Your task to perform on an android device: create a new album in the google photos Image 0: 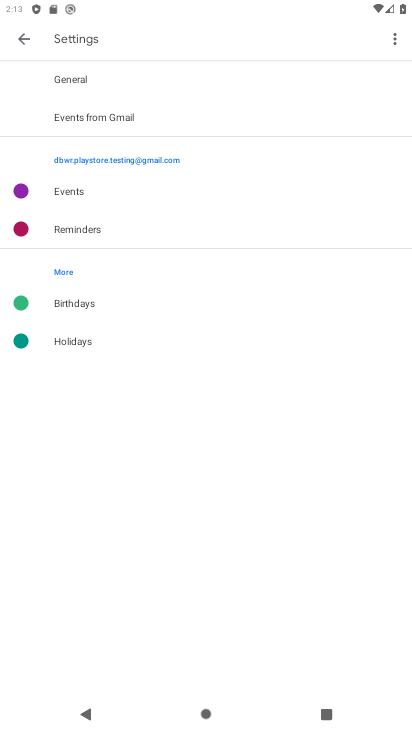
Step 0: press home button
Your task to perform on an android device: create a new album in the google photos Image 1: 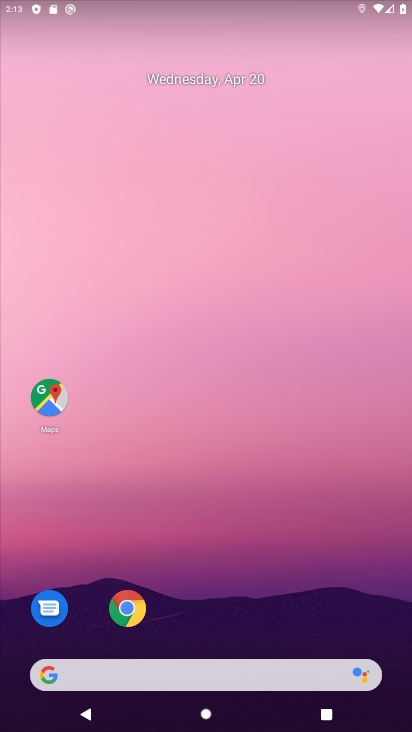
Step 1: drag from (375, 604) to (374, 258)
Your task to perform on an android device: create a new album in the google photos Image 2: 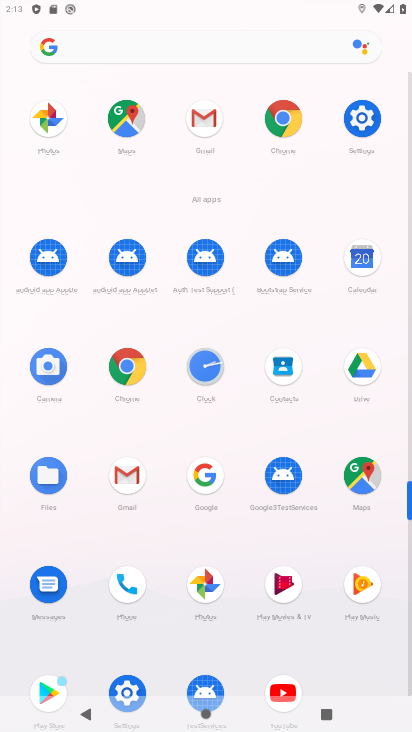
Step 2: click (205, 580)
Your task to perform on an android device: create a new album in the google photos Image 3: 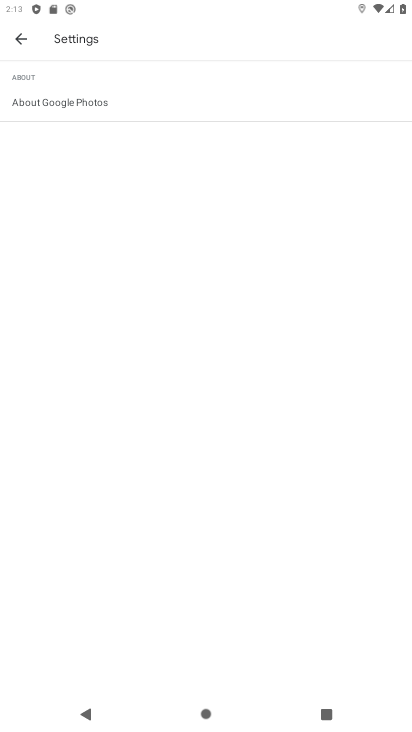
Step 3: click (23, 42)
Your task to perform on an android device: create a new album in the google photos Image 4: 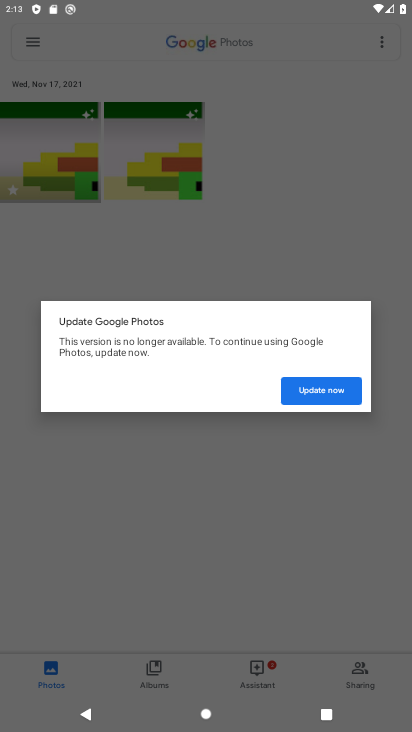
Step 4: click (314, 383)
Your task to perform on an android device: create a new album in the google photos Image 5: 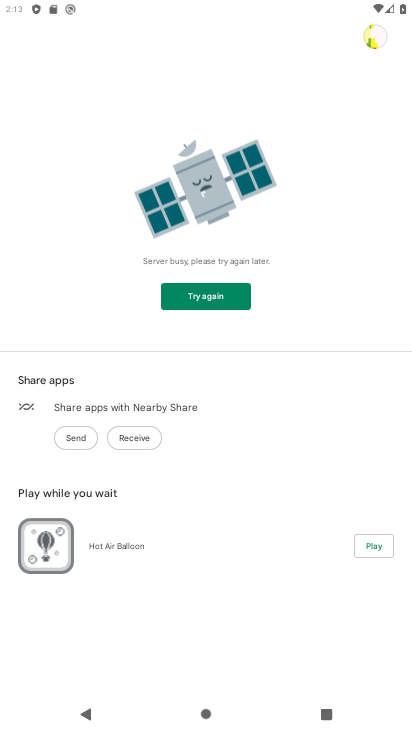
Step 5: click (213, 304)
Your task to perform on an android device: create a new album in the google photos Image 6: 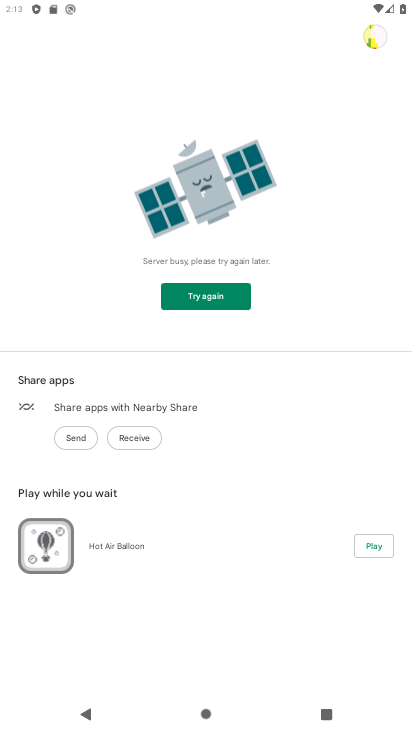
Step 6: task complete